Your task to perform on an android device: open app "Spotify" (install if not already installed) and go to login screen Image 0: 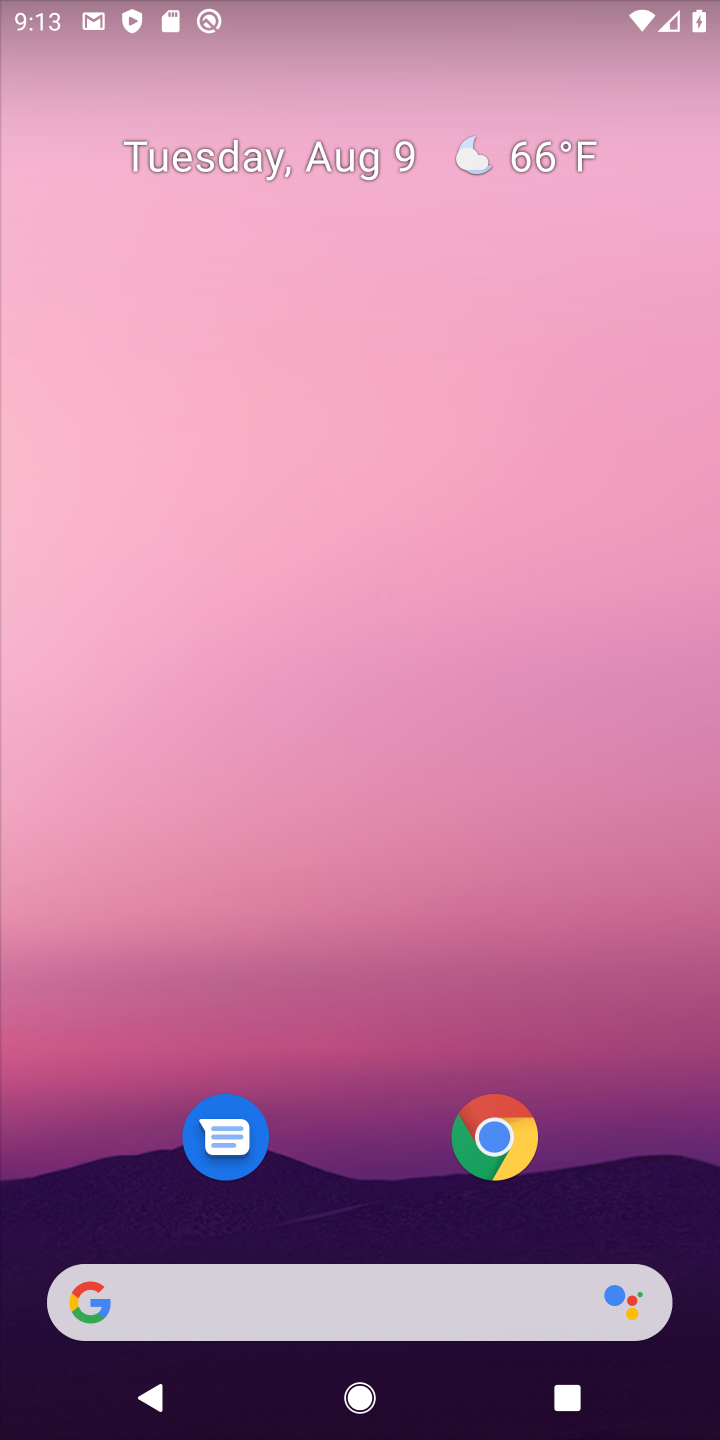
Step 0: drag from (362, 1151) to (444, 319)
Your task to perform on an android device: open app "Spotify" (install if not already installed) and go to login screen Image 1: 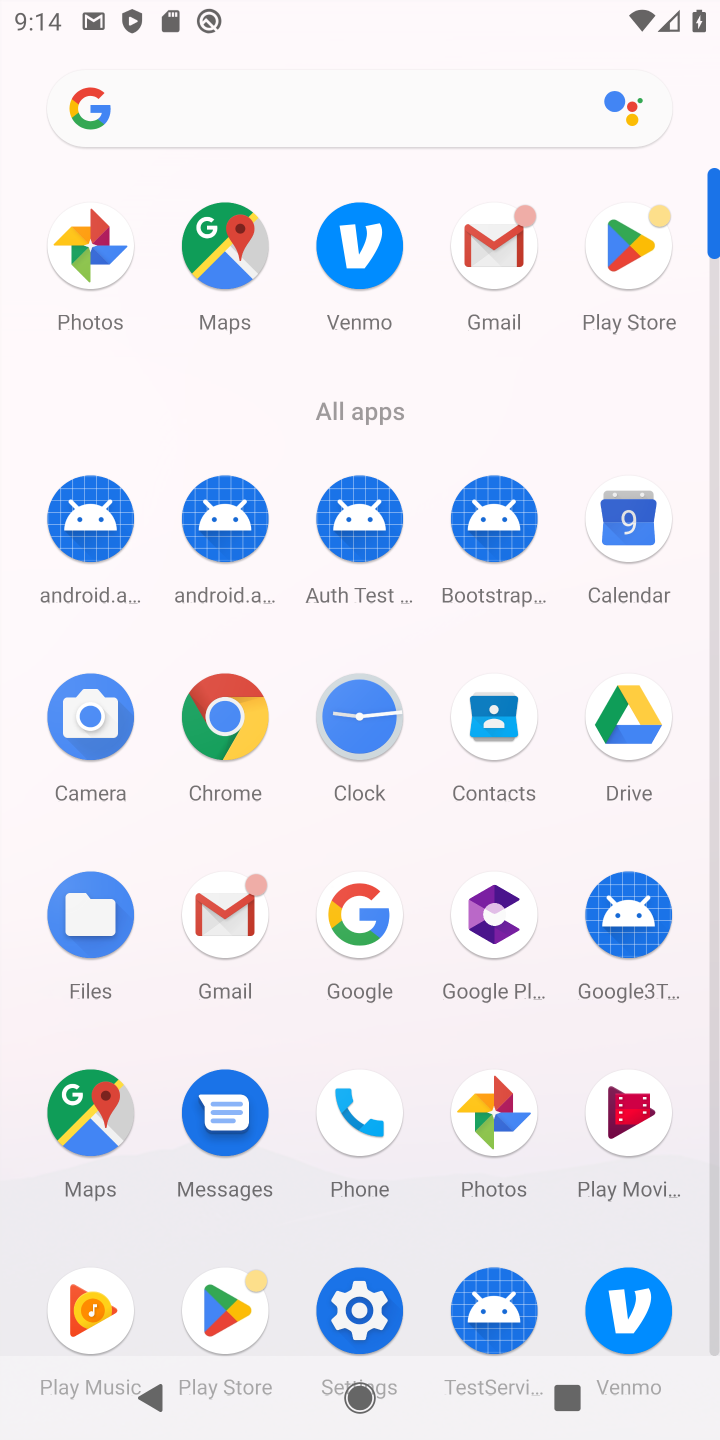
Step 1: click (614, 272)
Your task to perform on an android device: open app "Spotify" (install if not already installed) and go to login screen Image 2: 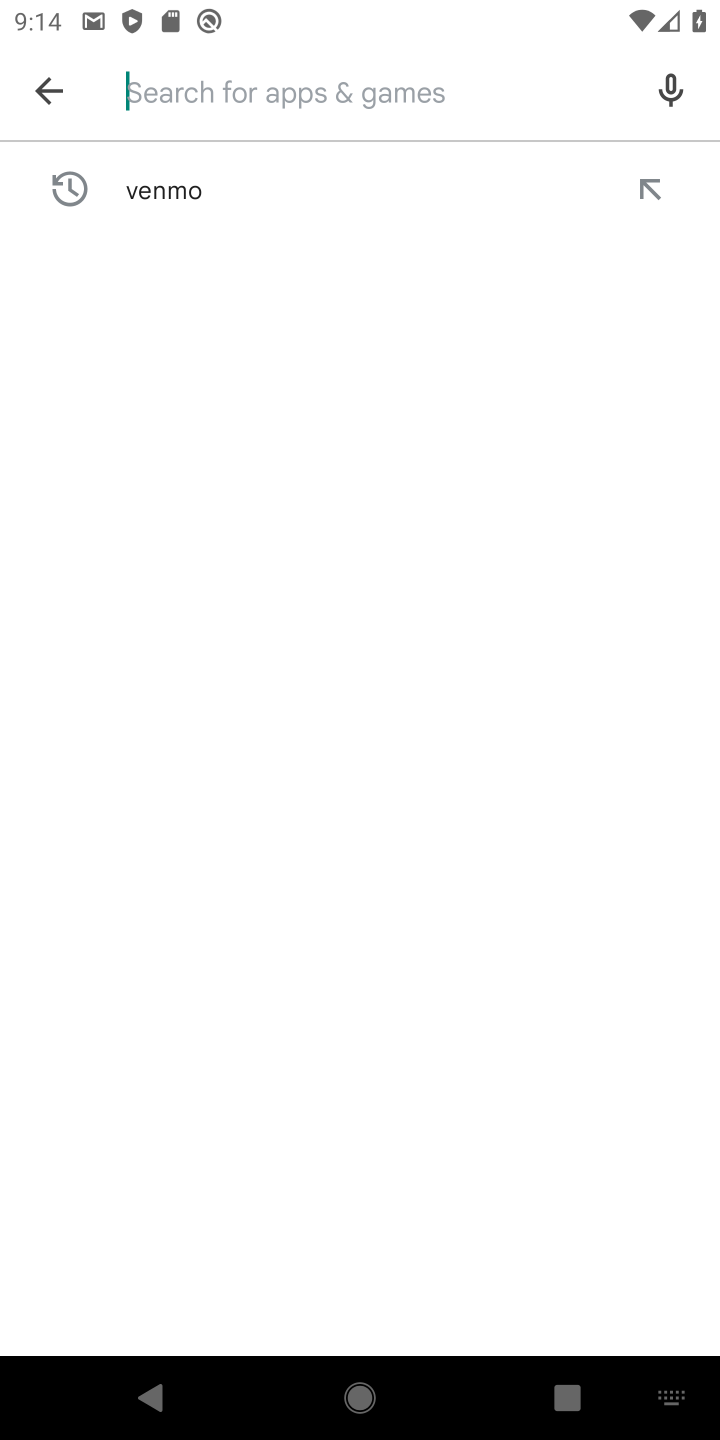
Step 2: type "Spotify"
Your task to perform on an android device: open app "Spotify" (install if not already installed) and go to login screen Image 3: 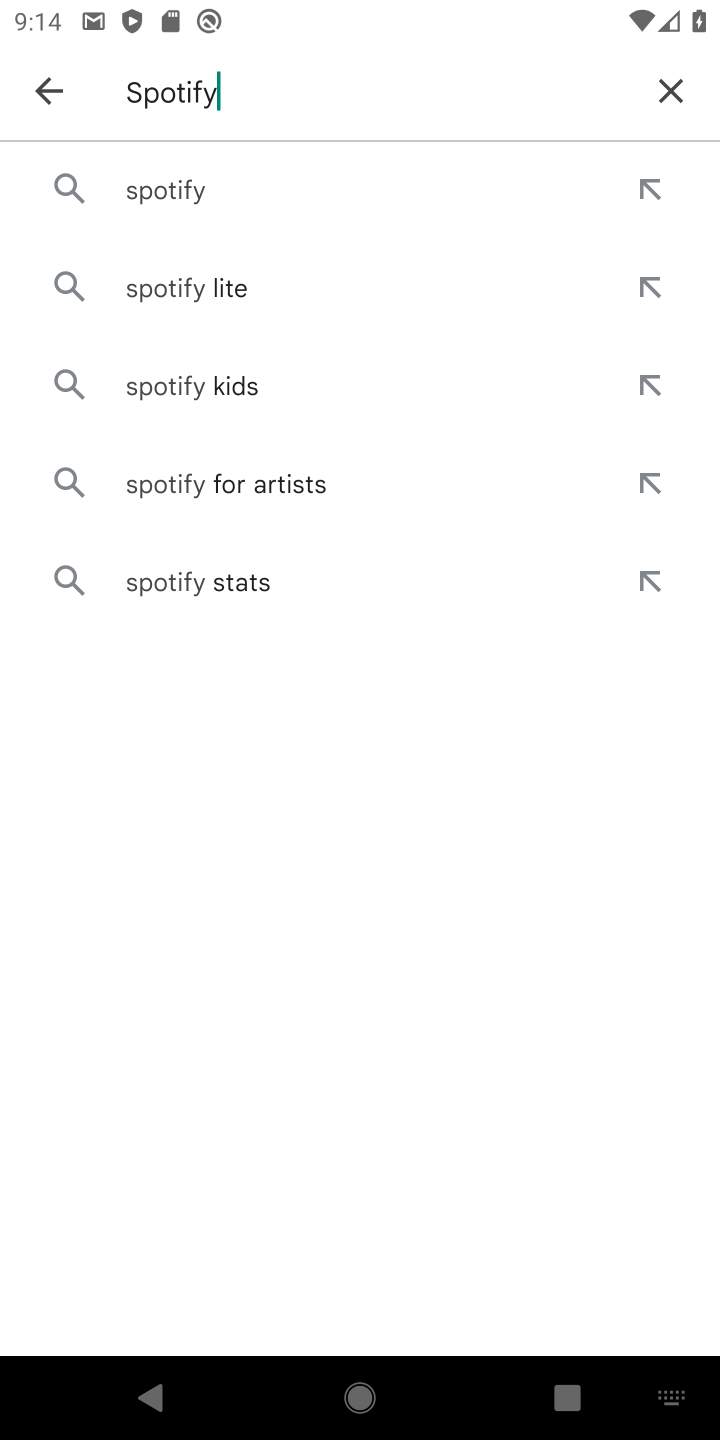
Step 3: click (281, 178)
Your task to perform on an android device: open app "Spotify" (install if not already installed) and go to login screen Image 4: 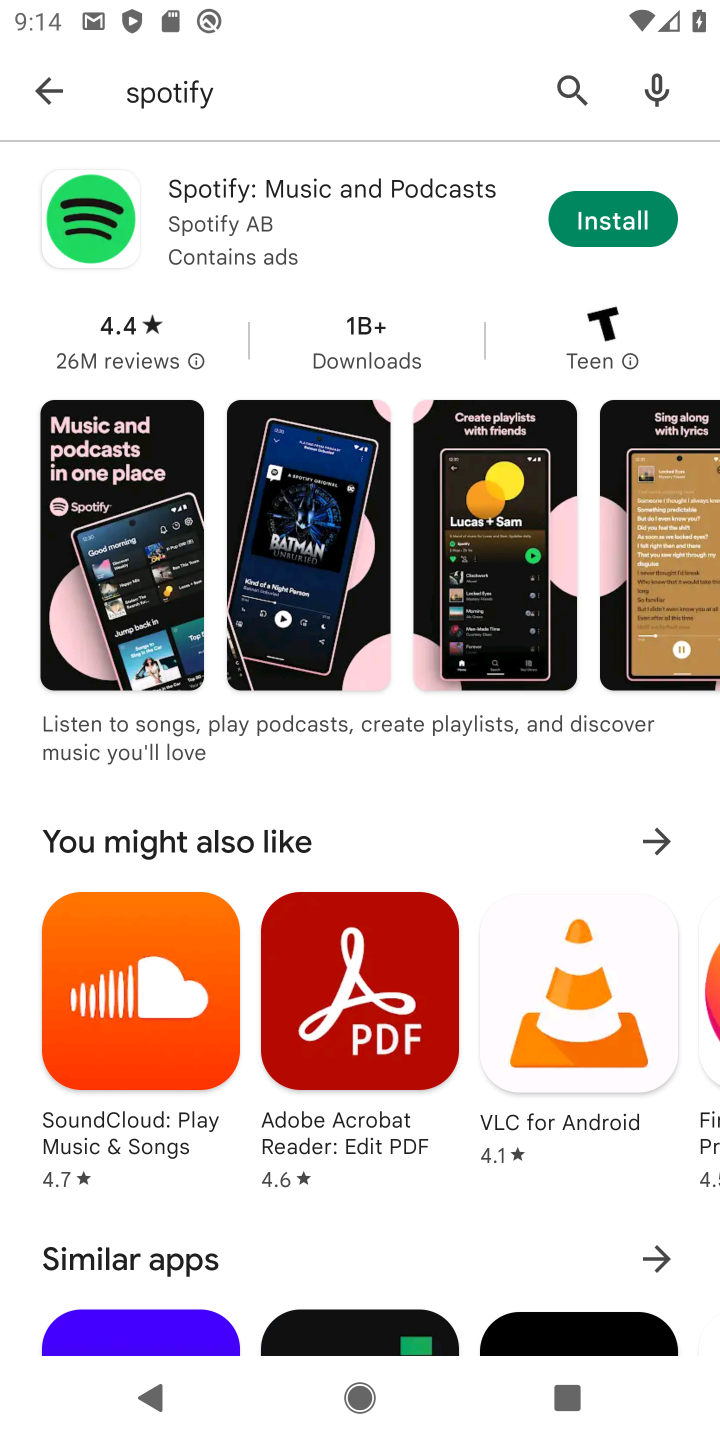
Step 4: click (600, 226)
Your task to perform on an android device: open app "Spotify" (install if not already installed) and go to login screen Image 5: 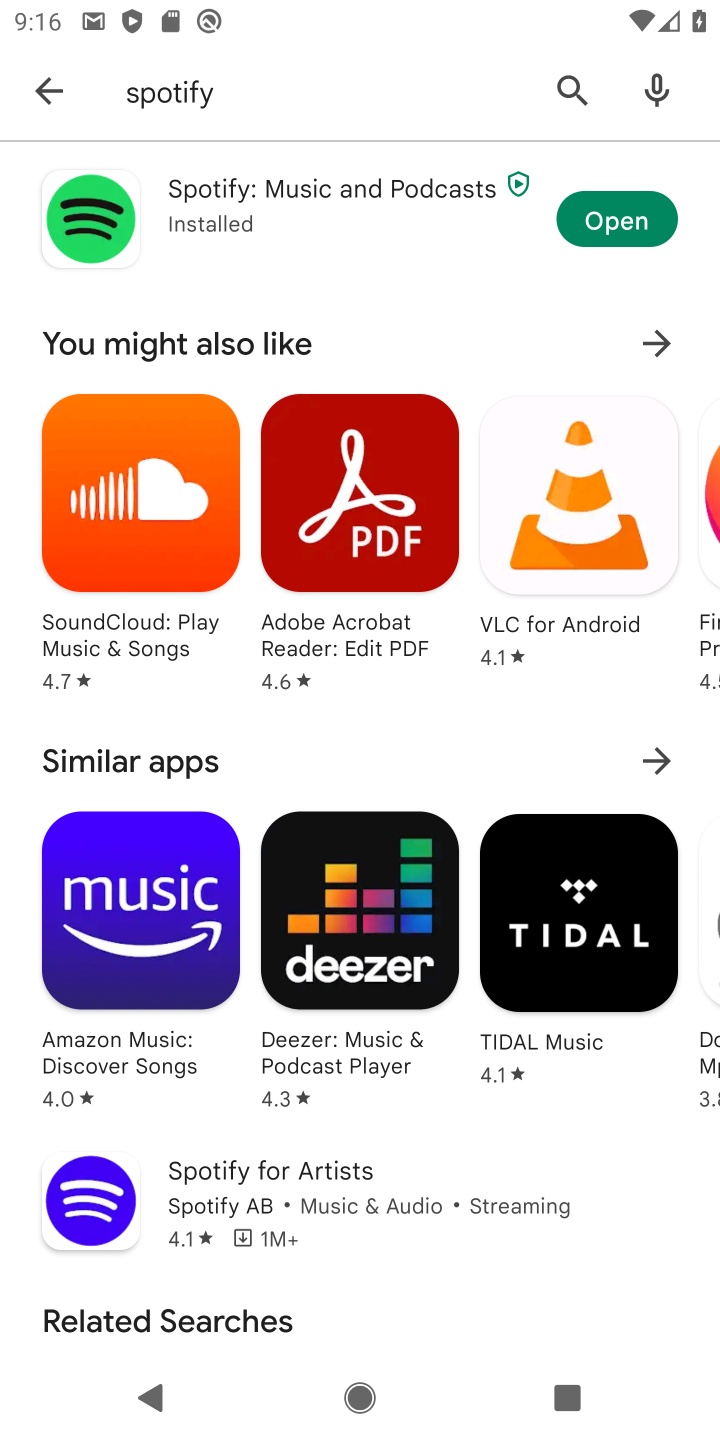
Step 5: click (583, 206)
Your task to perform on an android device: open app "Spotify" (install if not already installed) and go to login screen Image 6: 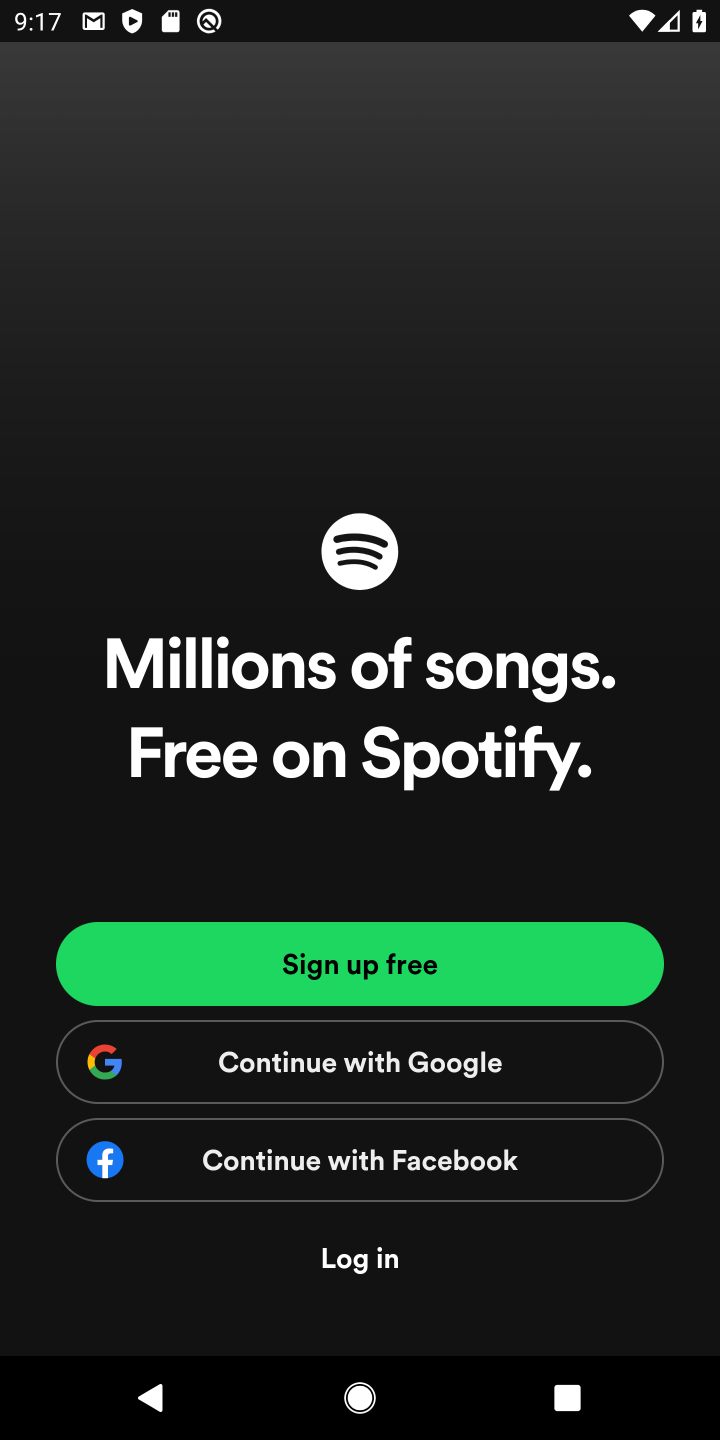
Step 6: task complete